Your task to perform on an android device: Clear all items from cart on target.com. Add acer predator to the cart on target.com, then select checkout. Image 0: 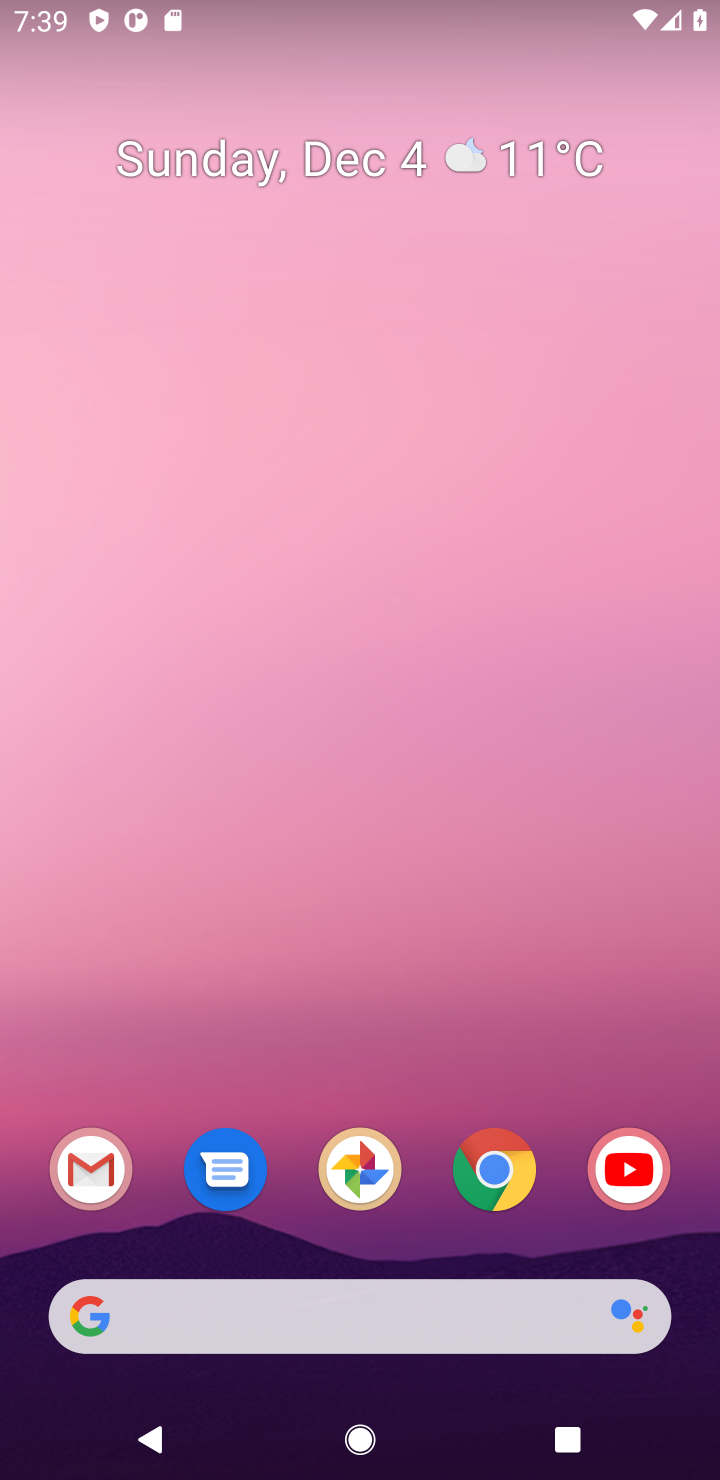
Step 0: drag from (447, 1398) to (685, 34)
Your task to perform on an android device: Clear all items from cart on target.com. Add acer predator to the cart on target.com, then select checkout. Image 1: 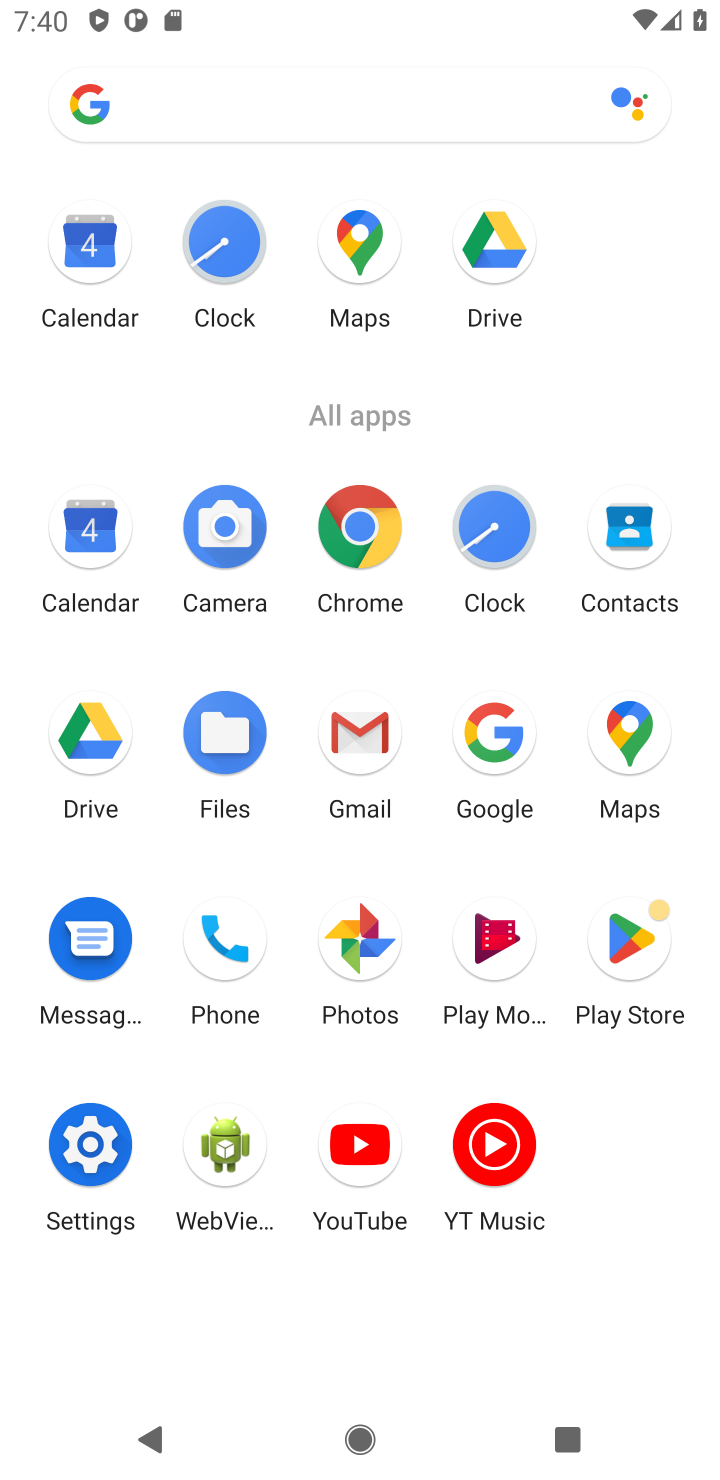
Step 1: click (369, 522)
Your task to perform on an android device: Clear all items from cart on target.com. Add acer predator to the cart on target.com, then select checkout. Image 2: 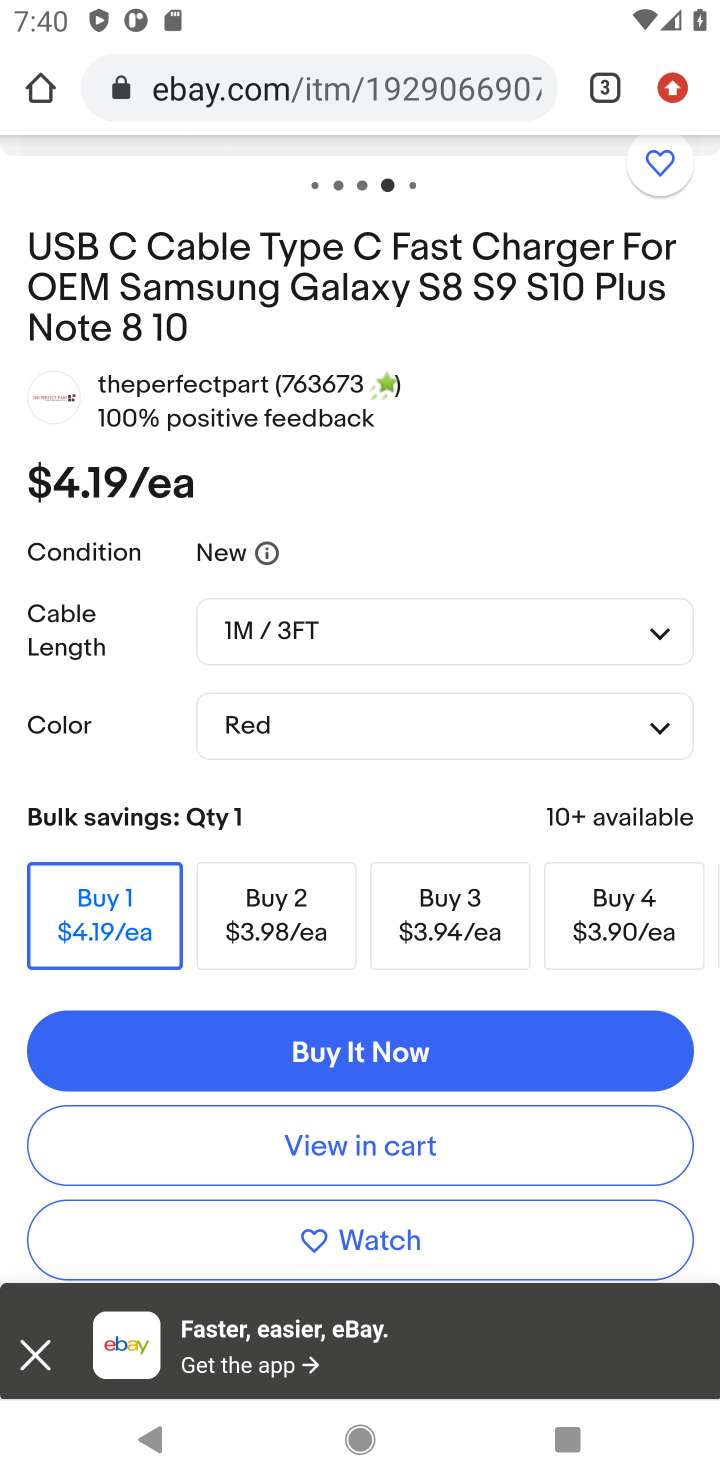
Step 2: click (371, 90)
Your task to perform on an android device: Clear all items from cart on target.com. Add acer predator to the cart on target.com, then select checkout. Image 3: 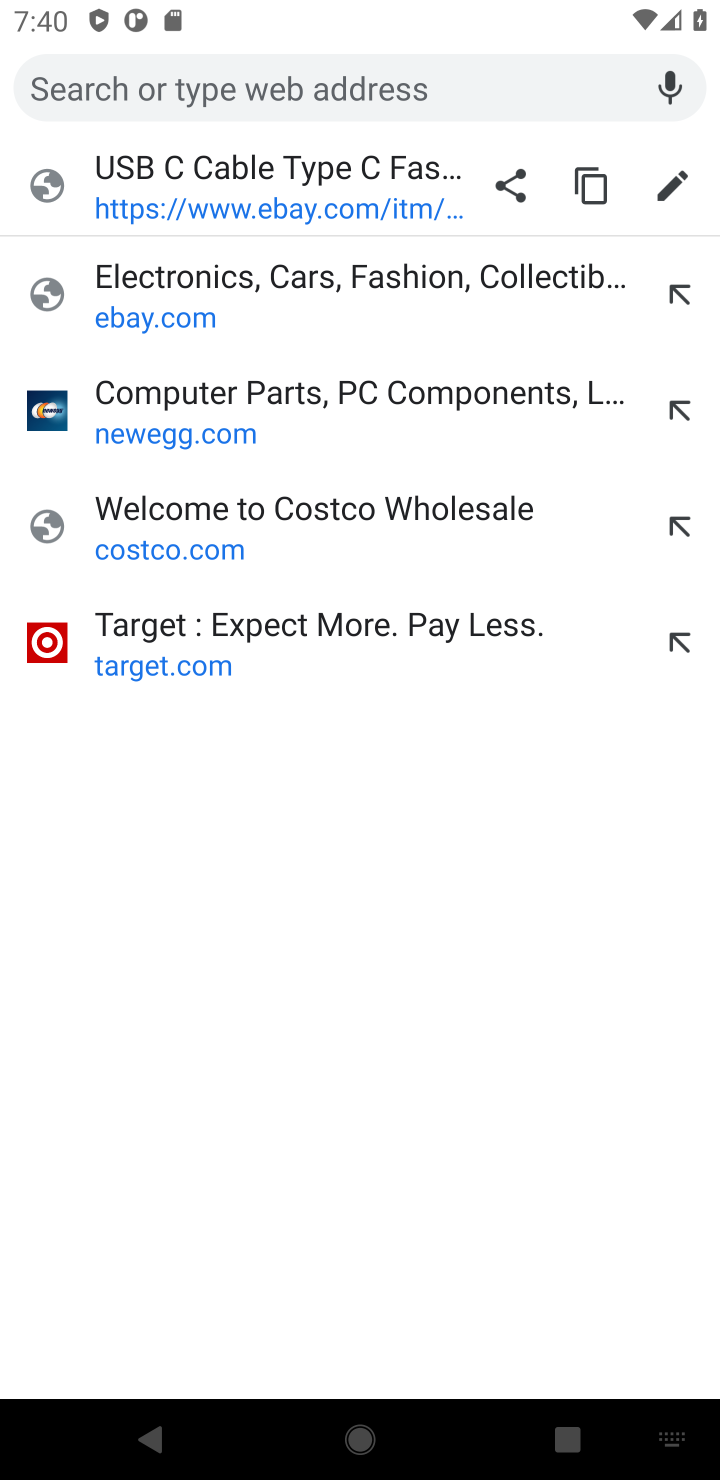
Step 3: type "target.com"
Your task to perform on an android device: Clear all items from cart on target.com. Add acer predator to the cart on target.com, then select checkout. Image 4: 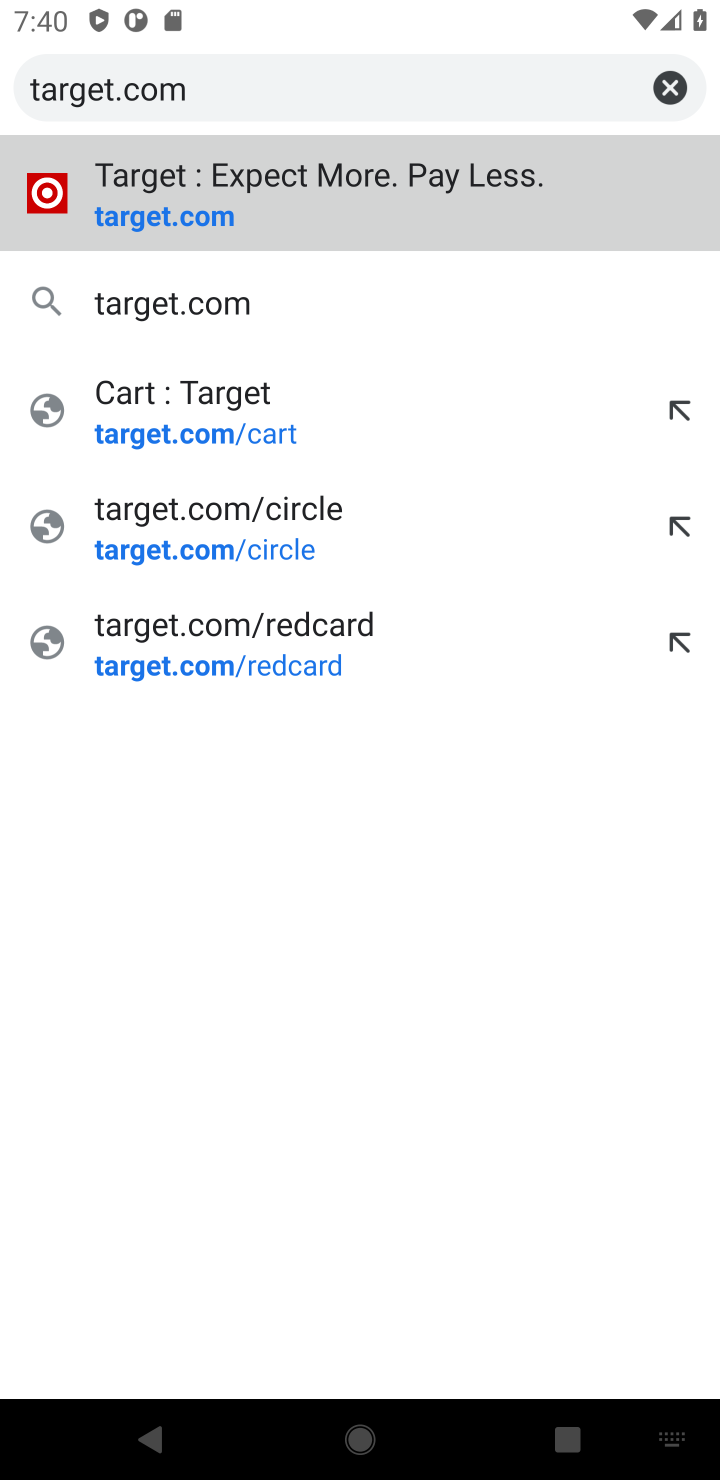
Step 4: click (165, 210)
Your task to perform on an android device: Clear all items from cart on target.com. Add acer predator to the cart on target.com, then select checkout. Image 5: 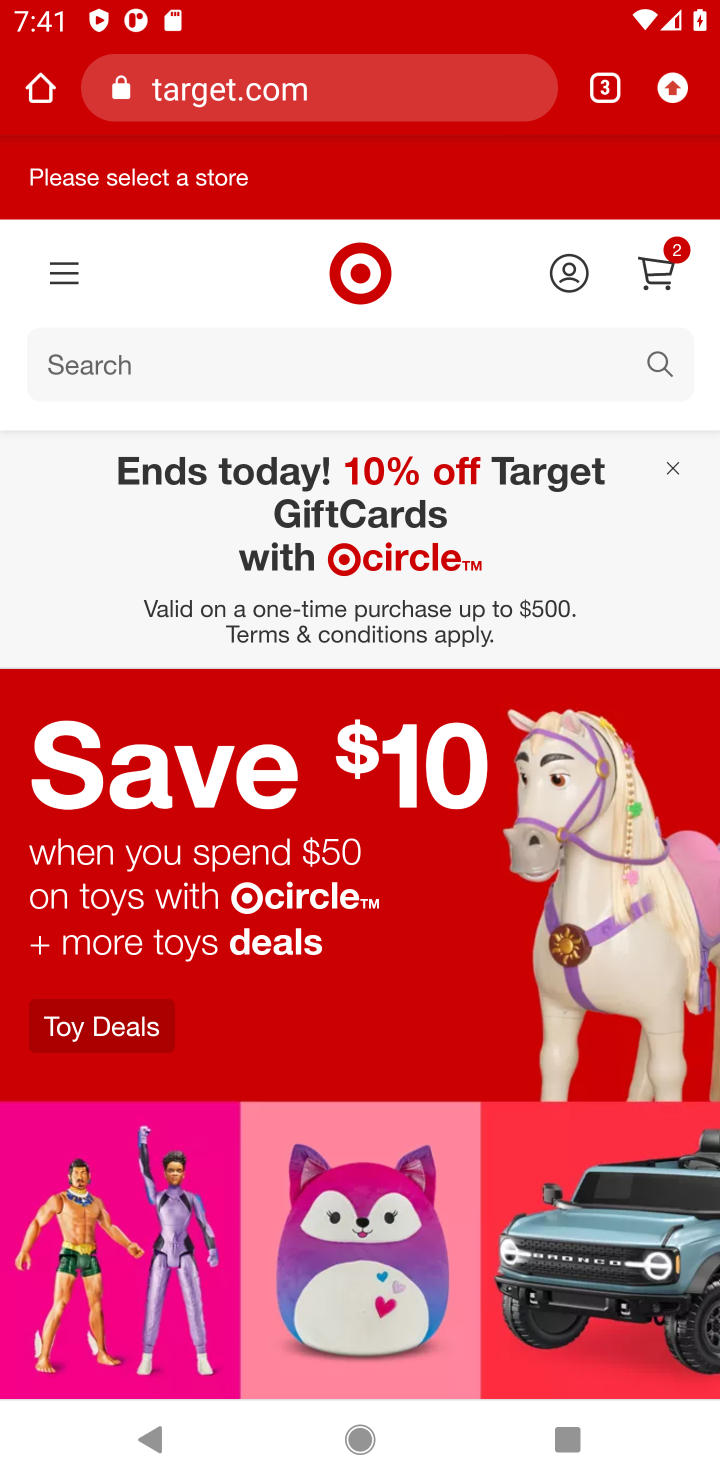
Step 5: click (661, 265)
Your task to perform on an android device: Clear all items from cart on target.com. Add acer predator to the cart on target.com, then select checkout. Image 6: 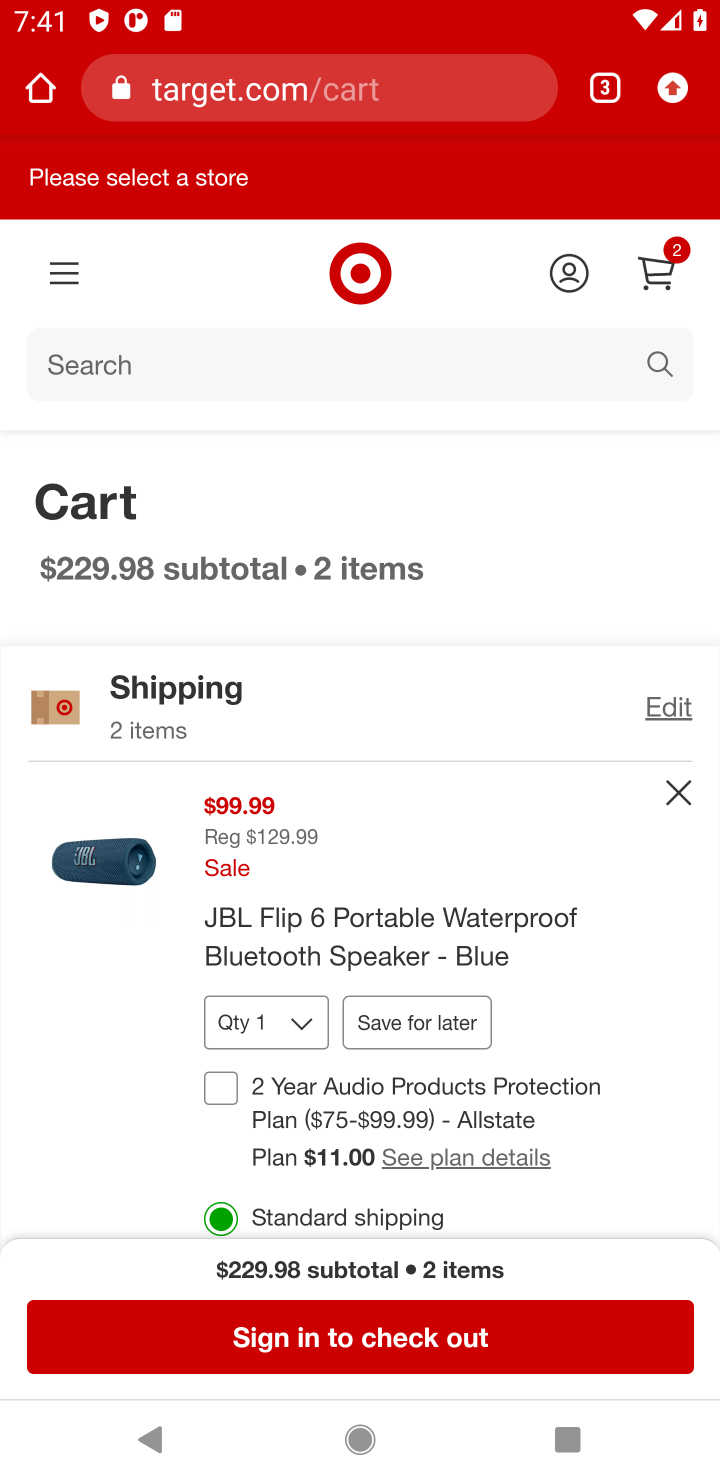
Step 6: drag from (586, 1014) to (491, 586)
Your task to perform on an android device: Clear all items from cart on target.com. Add acer predator to the cart on target.com, then select checkout. Image 7: 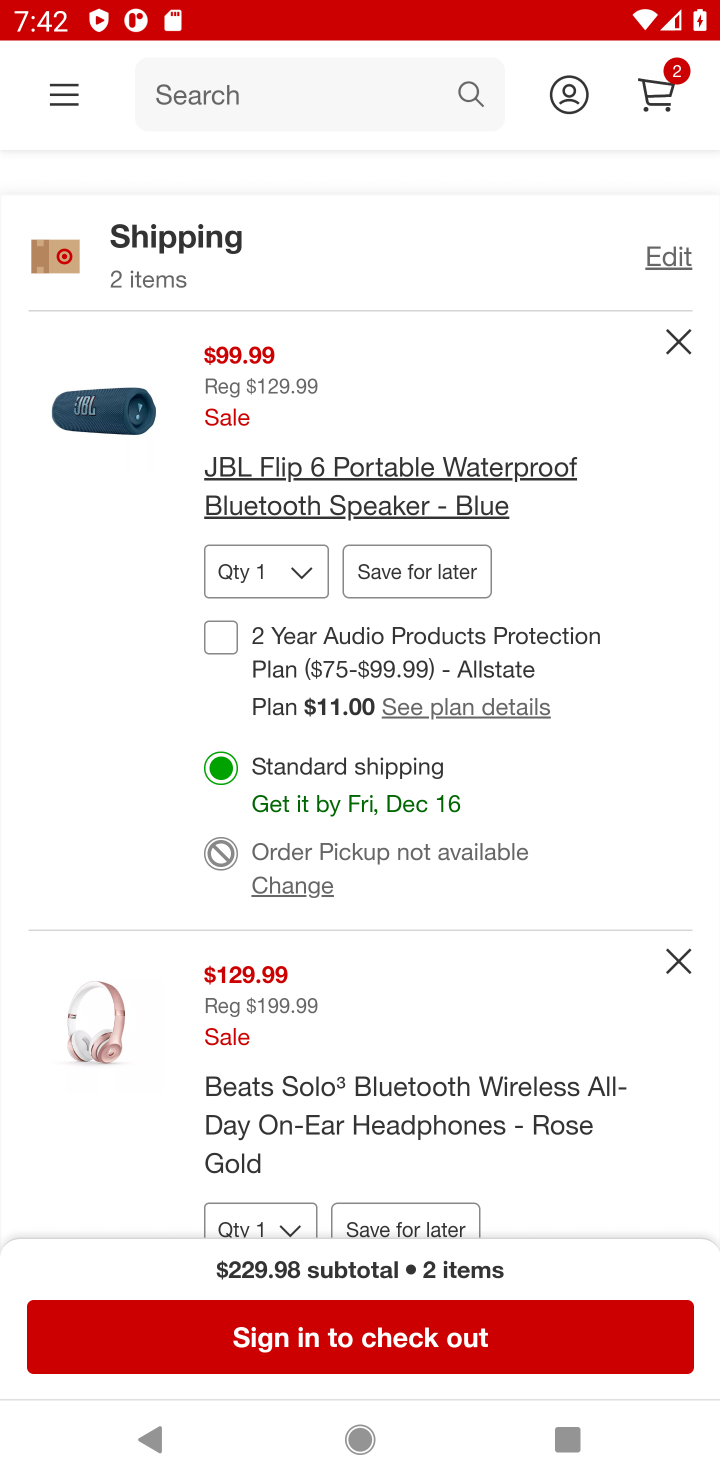
Step 7: click (686, 350)
Your task to perform on an android device: Clear all items from cart on target.com. Add acer predator to the cart on target.com, then select checkout. Image 8: 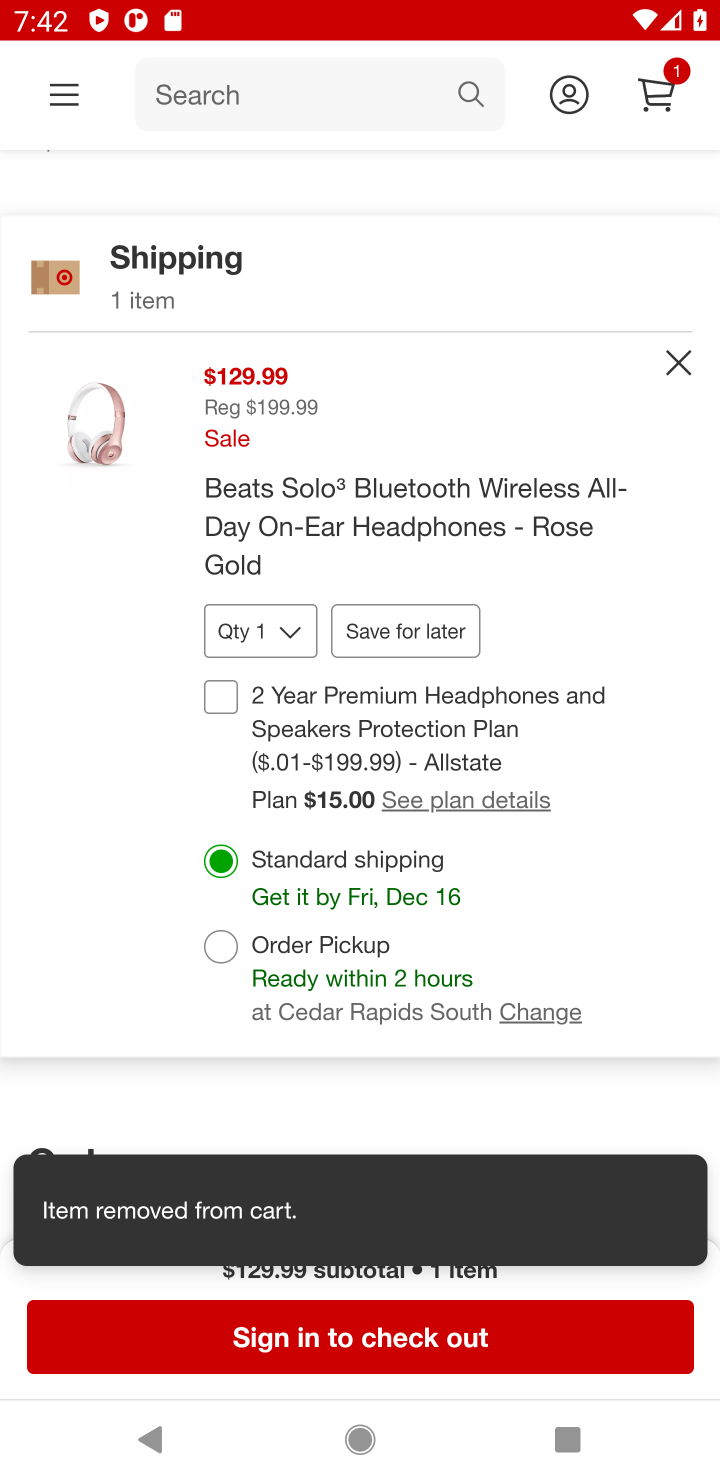
Step 8: click (686, 350)
Your task to perform on an android device: Clear all items from cart on target.com. Add acer predator to the cart on target.com, then select checkout. Image 9: 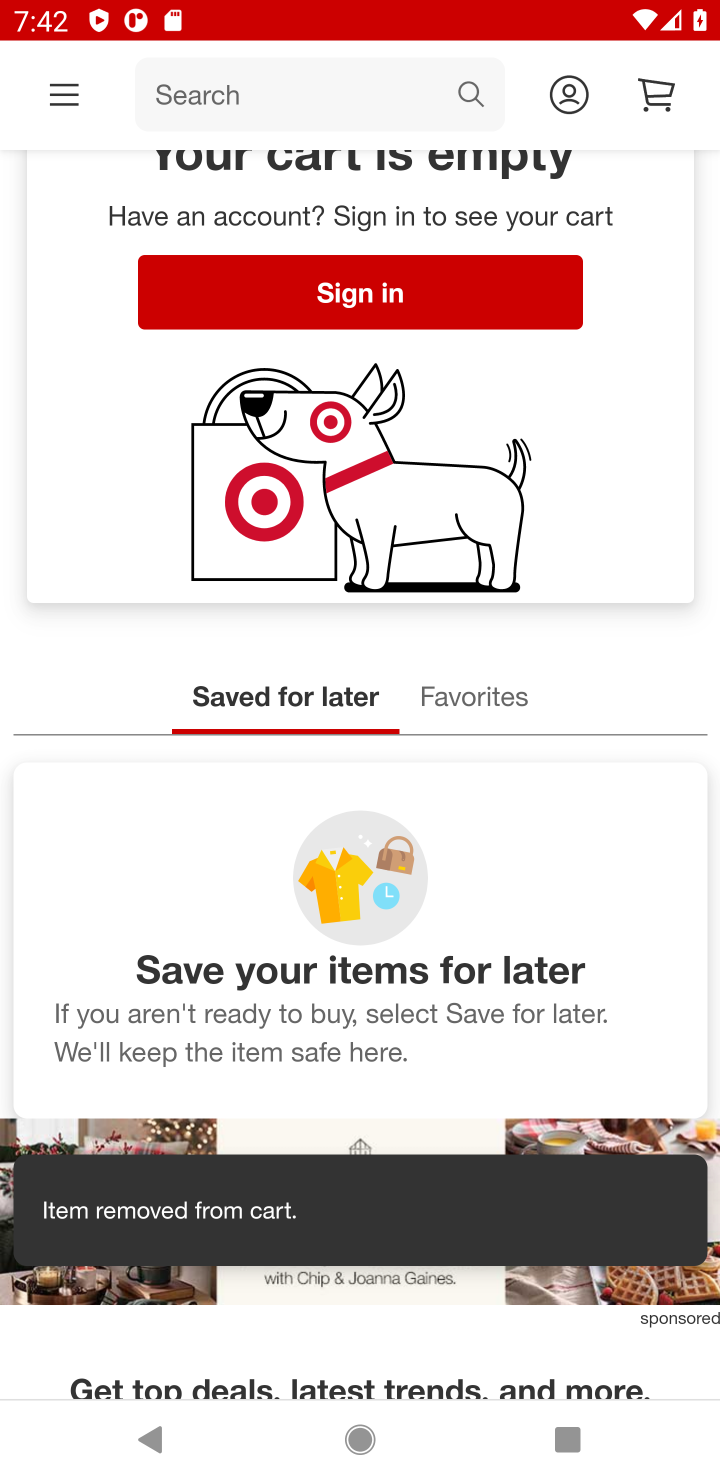
Step 9: drag from (642, 716) to (625, 877)
Your task to perform on an android device: Clear all items from cart on target.com. Add acer predator to the cart on target.com, then select checkout. Image 10: 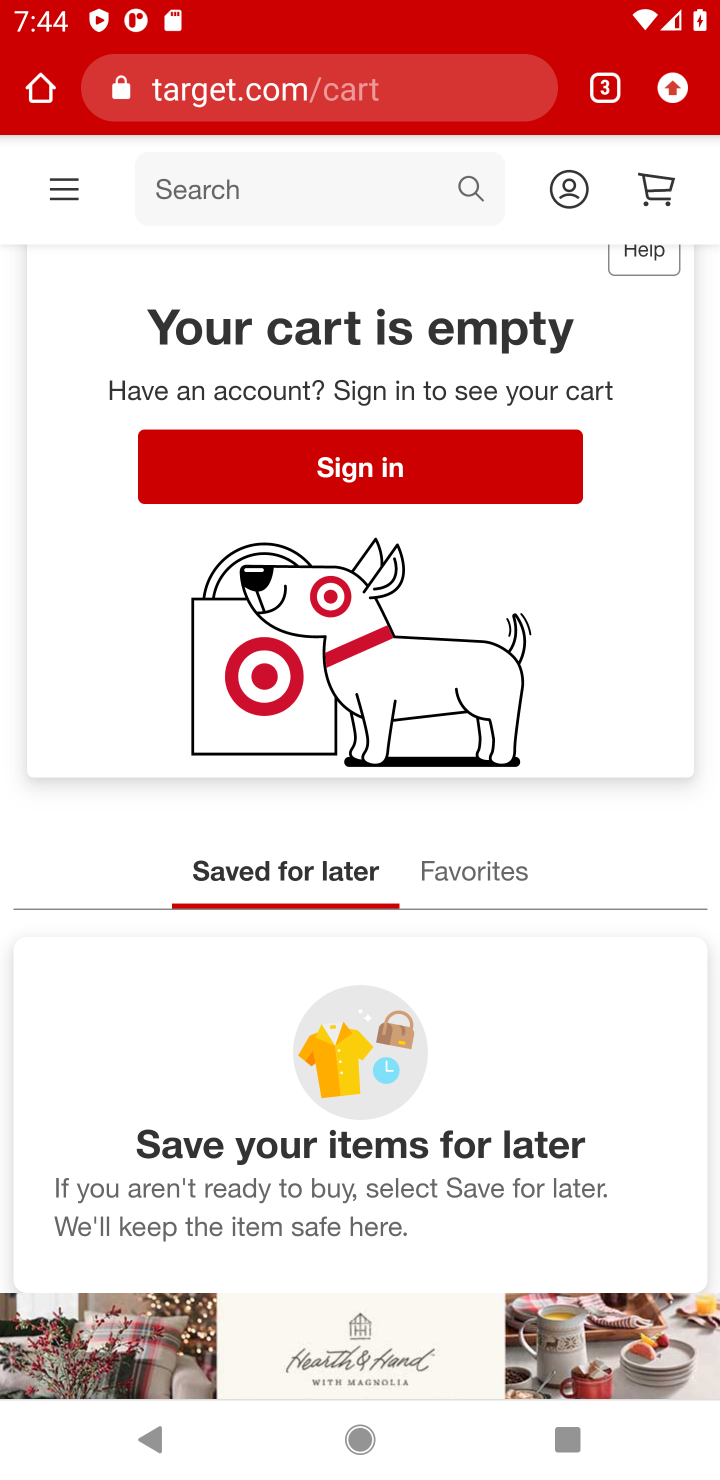
Step 10: click (347, 192)
Your task to perform on an android device: Clear all items from cart on target.com. Add acer predator to the cart on target.com, then select checkout. Image 11: 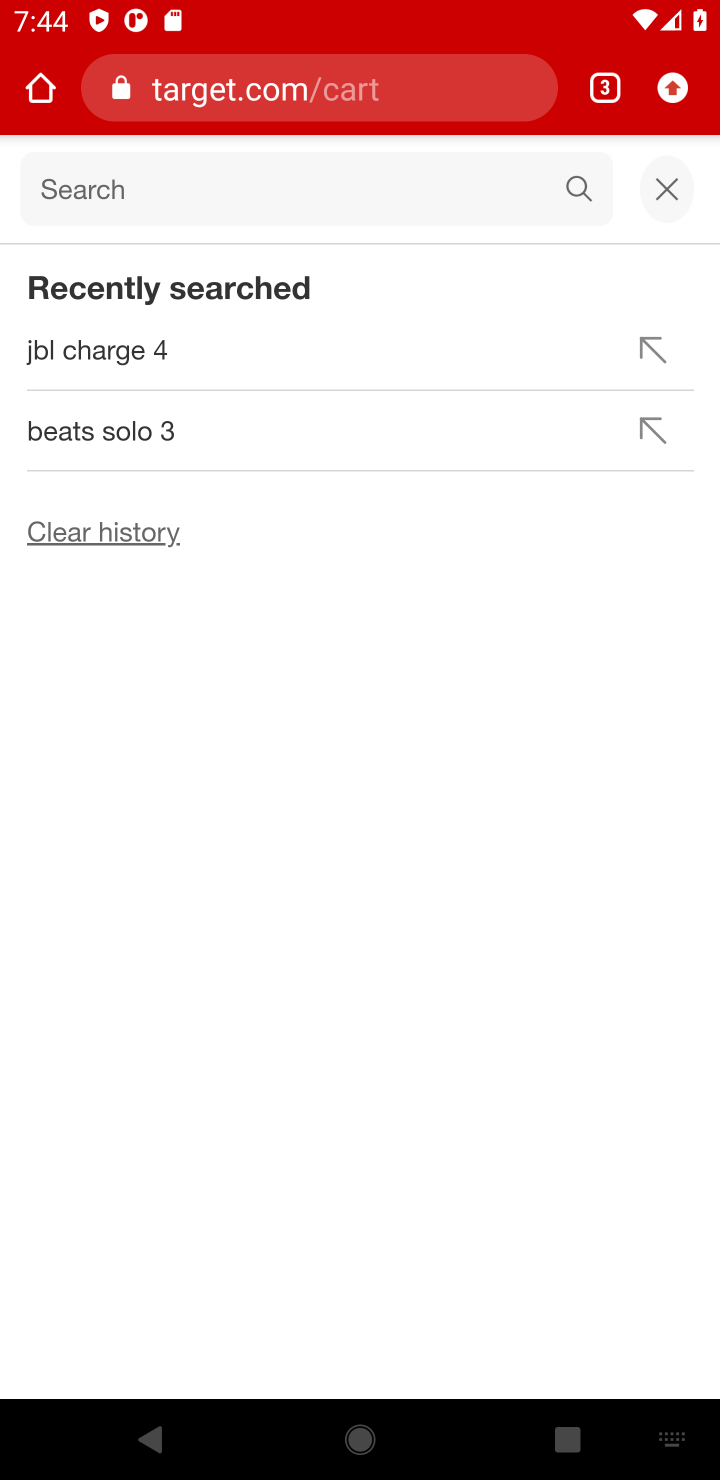
Step 11: type "acer predator"
Your task to perform on an android device: Clear all items from cart on target.com. Add acer predator to the cart on target.com, then select checkout. Image 12: 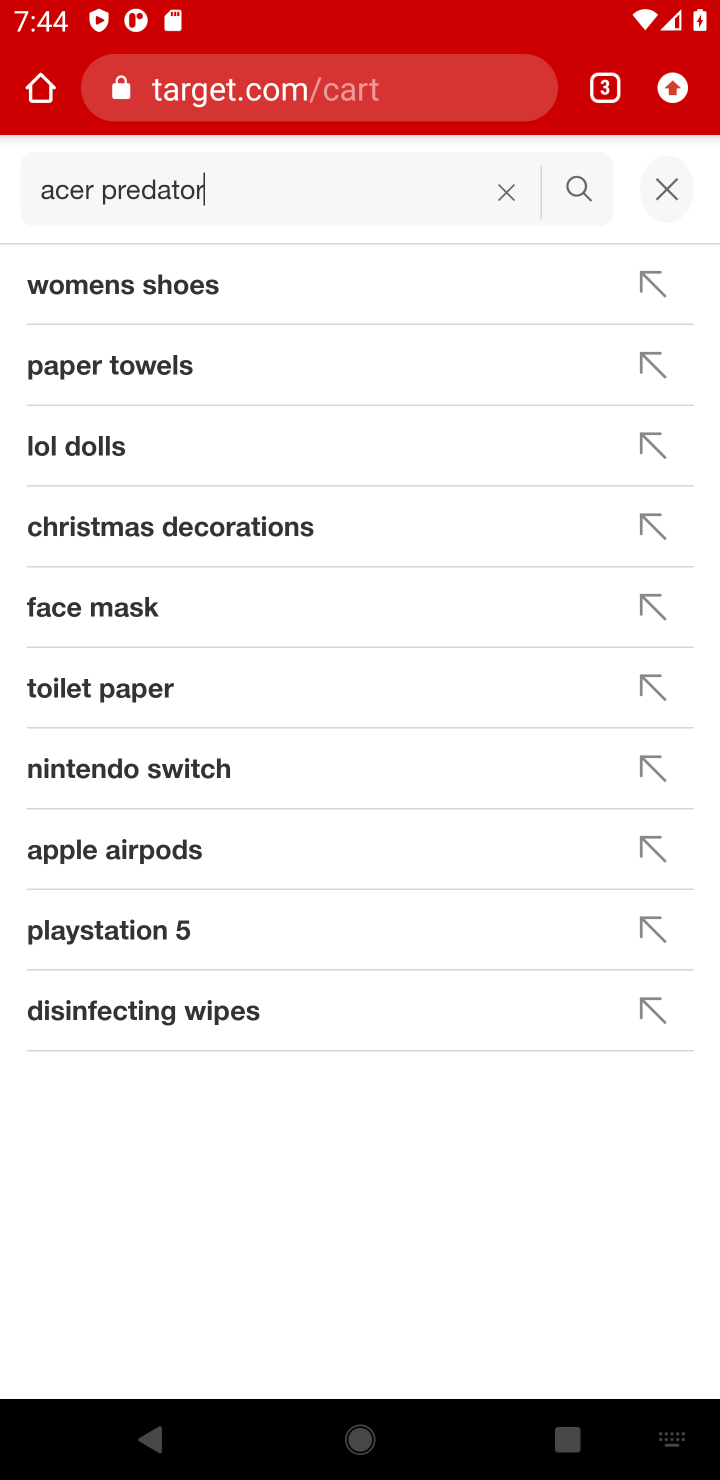
Step 12: type ""
Your task to perform on an android device: Clear all items from cart on target.com. Add acer predator to the cart on target.com, then select checkout. Image 13: 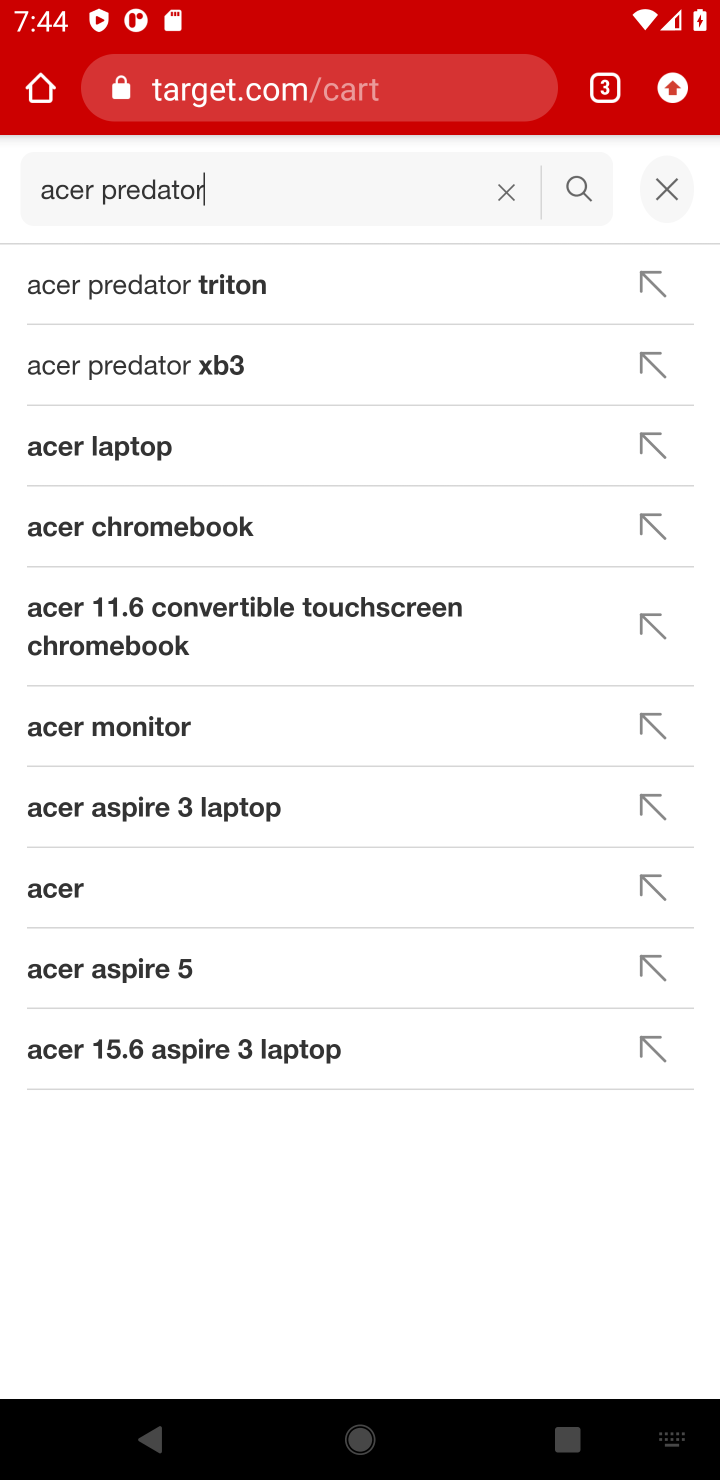
Step 13: click (578, 185)
Your task to perform on an android device: Clear all items from cart on target.com. Add acer predator to the cart on target.com, then select checkout. Image 14: 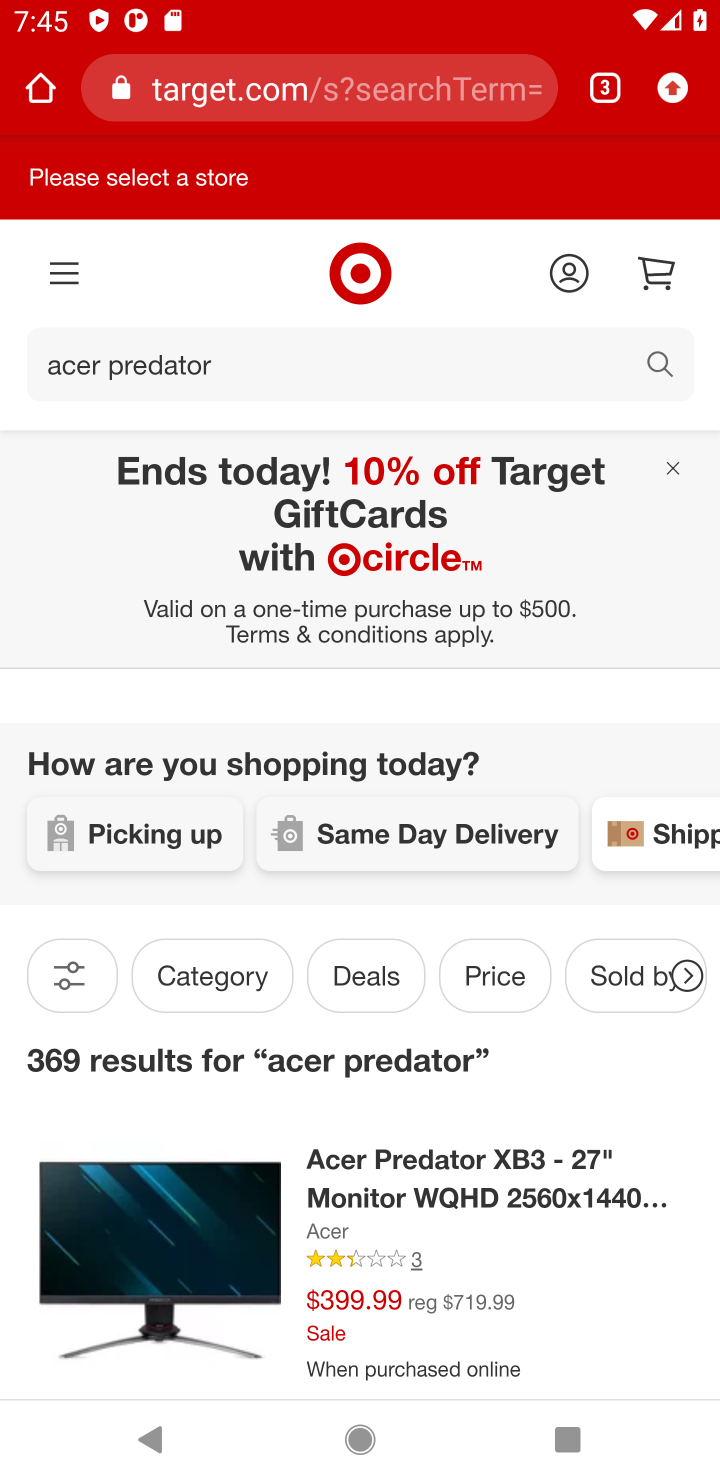
Step 14: drag from (238, 1059) to (238, 406)
Your task to perform on an android device: Clear all items from cart on target.com. Add acer predator to the cart on target.com, then select checkout. Image 15: 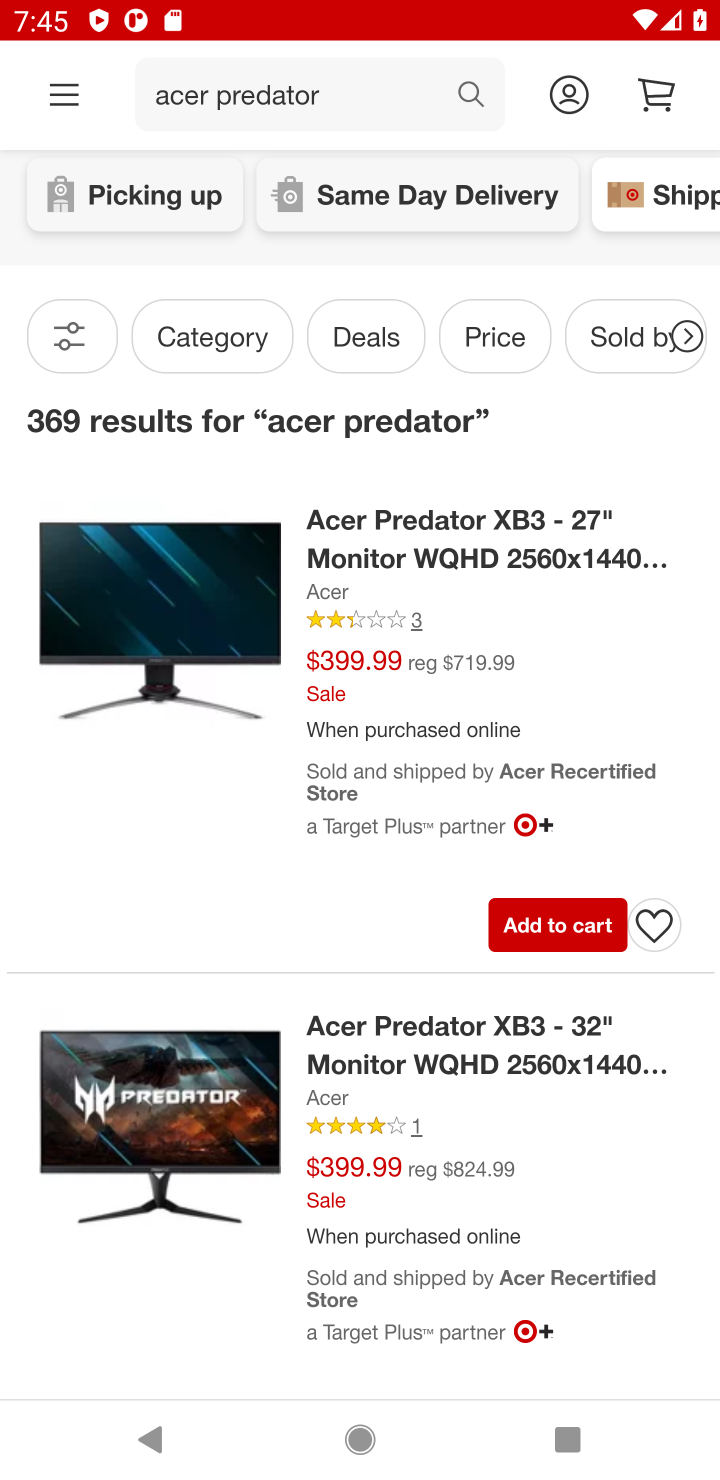
Step 15: click (549, 929)
Your task to perform on an android device: Clear all items from cart on target.com. Add acer predator to the cart on target.com, then select checkout. Image 16: 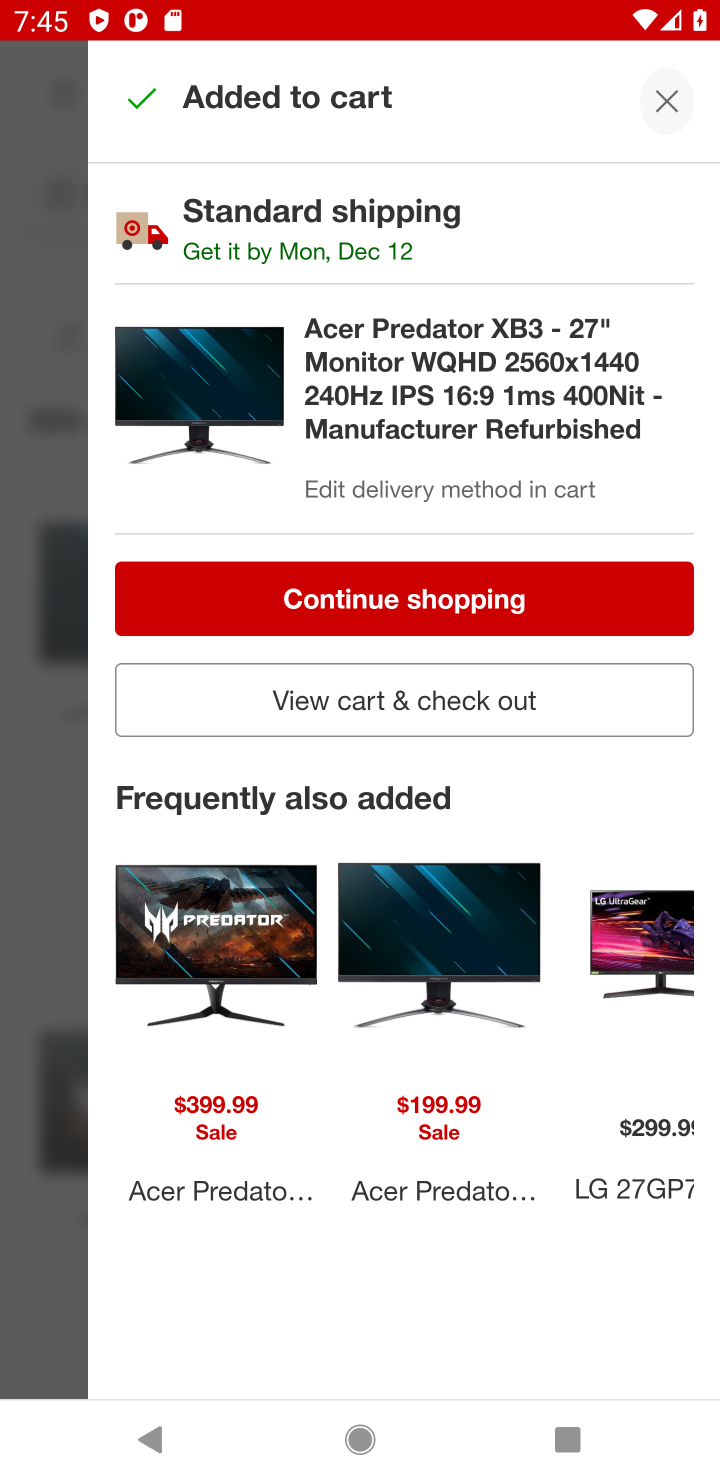
Step 16: click (464, 689)
Your task to perform on an android device: Clear all items from cart on target.com. Add acer predator to the cart on target.com, then select checkout. Image 17: 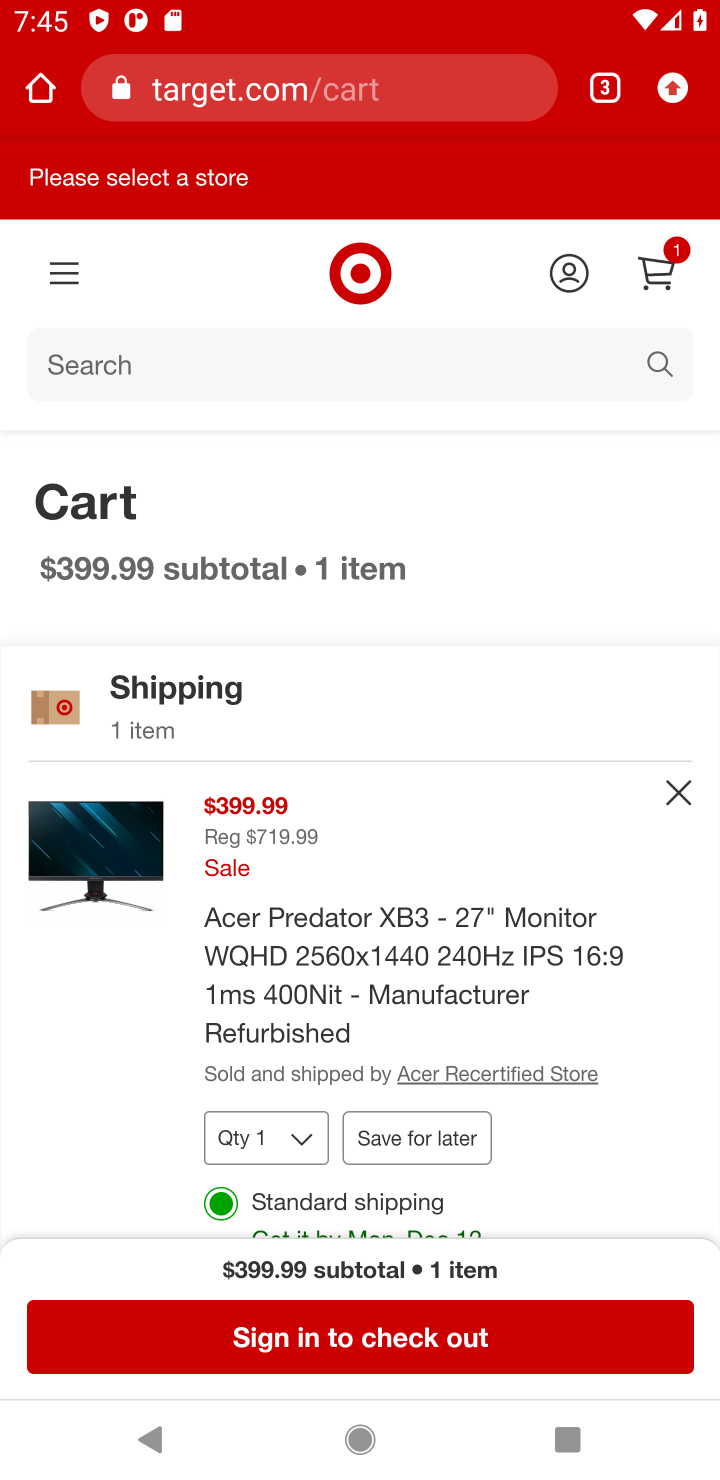
Step 17: task complete